Your task to perform on an android device: find snoozed emails in the gmail app Image 0: 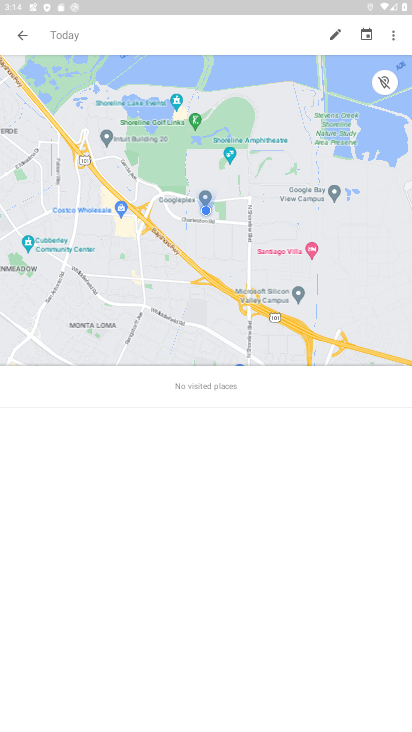
Step 0: press home button
Your task to perform on an android device: find snoozed emails in the gmail app Image 1: 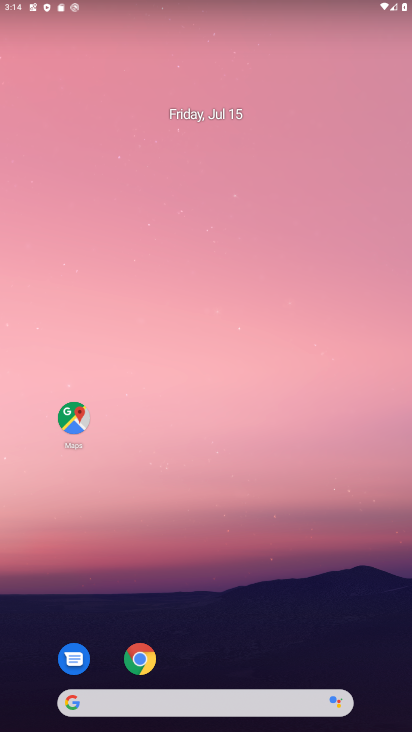
Step 1: drag from (91, 567) to (292, 23)
Your task to perform on an android device: find snoozed emails in the gmail app Image 2: 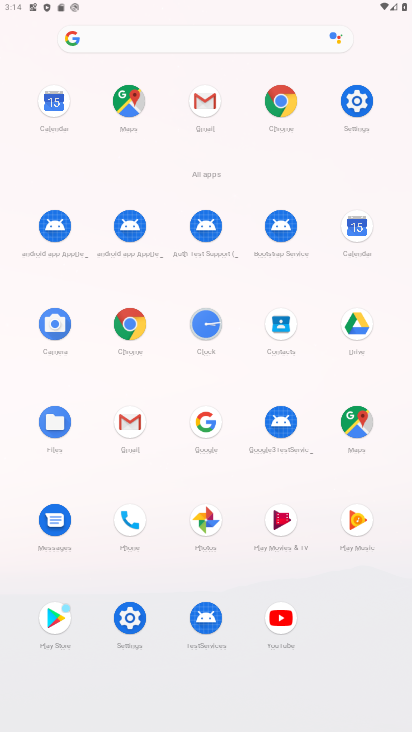
Step 2: click (119, 434)
Your task to perform on an android device: find snoozed emails in the gmail app Image 3: 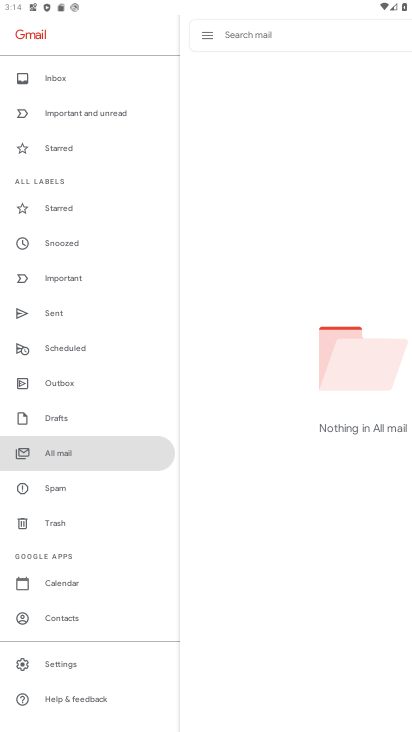
Step 3: click (84, 233)
Your task to perform on an android device: find snoozed emails in the gmail app Image 4: 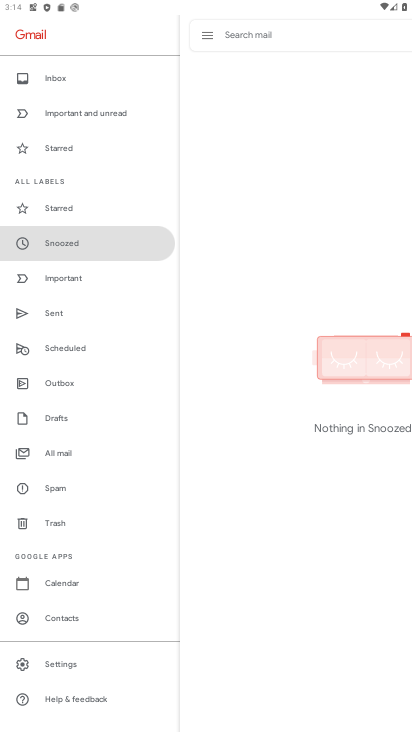
Step 4: task complete